Your task to perform on an android device: Go to network settings Image 0: 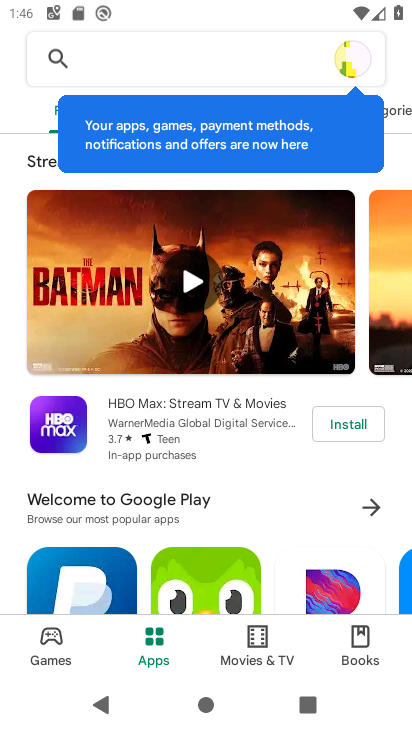
Step 0: press back button
Your task to perform on an android device: Go to network settings Image 1: 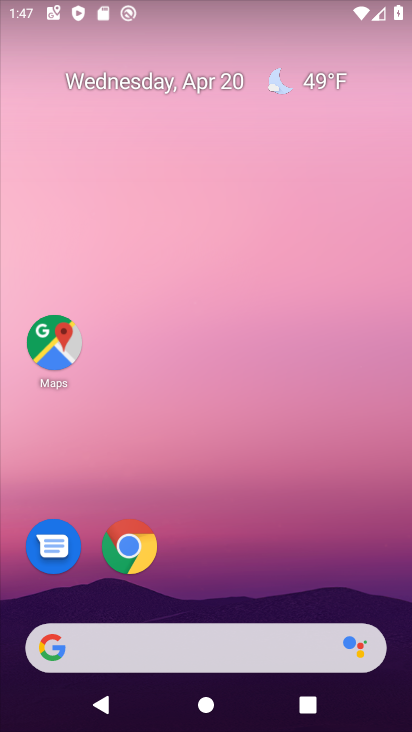
Step 1: drag from (220, 608) to (320, 51)
Your task to perform on an android device: Go to network settings Image 2: 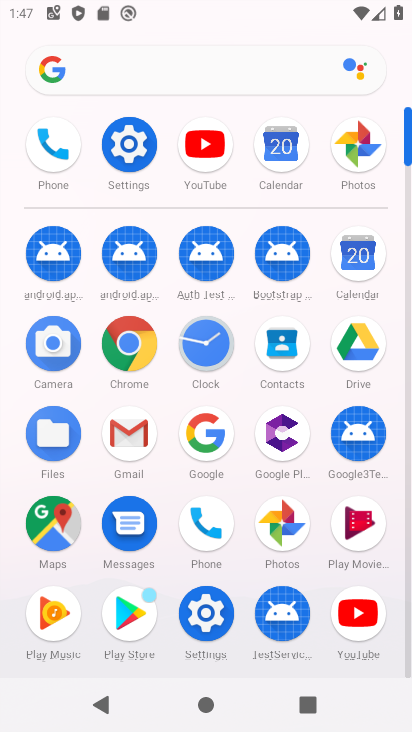
Step 2: click (126, 140)
Your task to perform on an android device: Go to network settings Image 3: 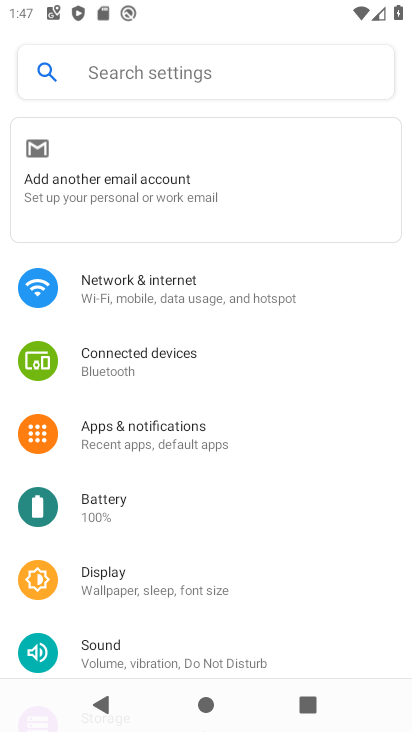
Step 3: click (151, 281)
Your task to perform on an android device: Go to network settings Image 4: 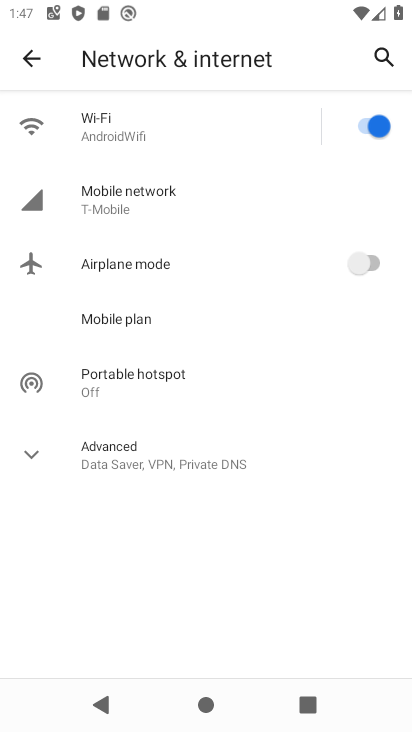
Step 4: task complete